Your task to perform on an android device: change text size in settings app Image 0: 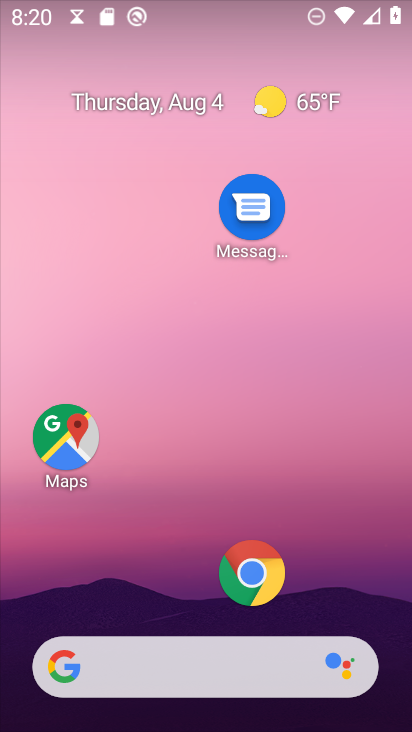
Step 0: press home button
Your task to perform on an android device: change text size in settings app Image 1: 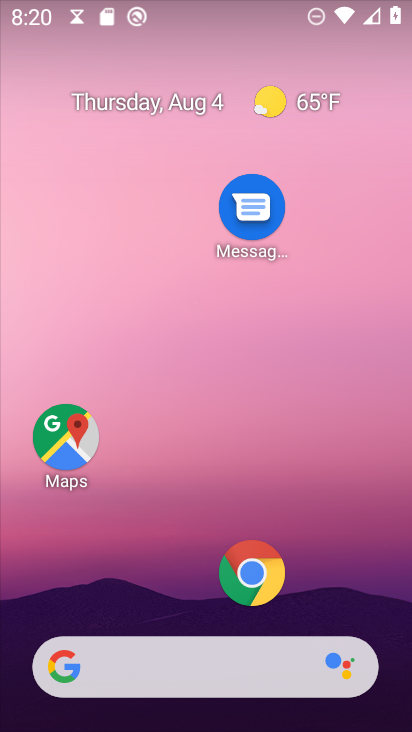
Step 1: drag from (172, 616) to (209, 162)
Your task to perform on an android device: change text size in settings app Image 2: 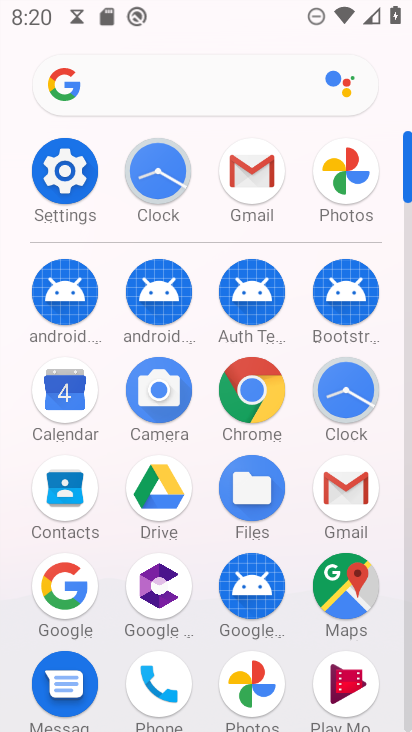
Step 2: click (37, 139)
Your task to perform on an android device: change text size in settings app Image 3: 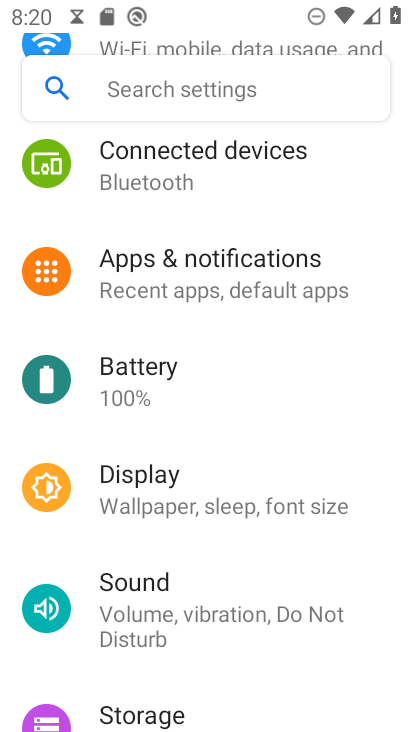
Step 3: click (150, 492)
Your task to perform on an android device: change text size in settings app Image 4: 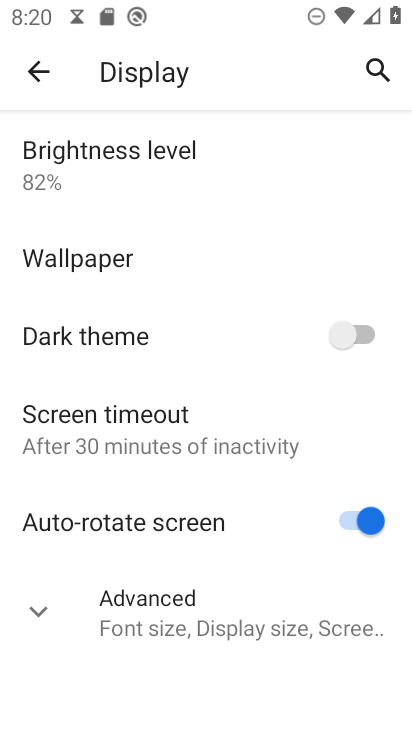
Step 4: drag from (280, 569) to (253, 234)
Your task to perform on an android device: change text size in settings app Image 5: 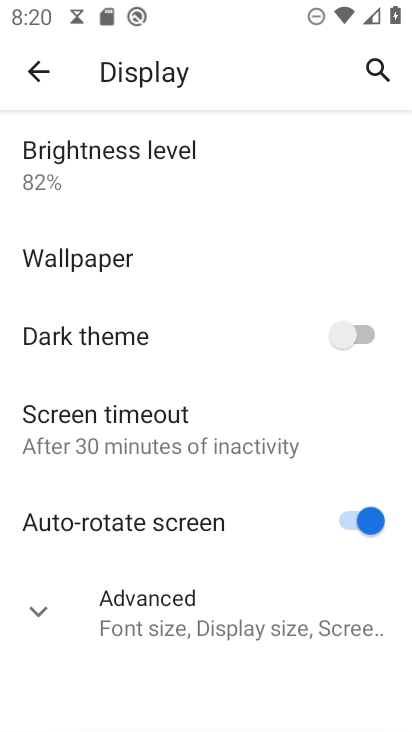
Step 5: click (157, 630)
Your task to perform on an android device: change text size in settings app Image 6: 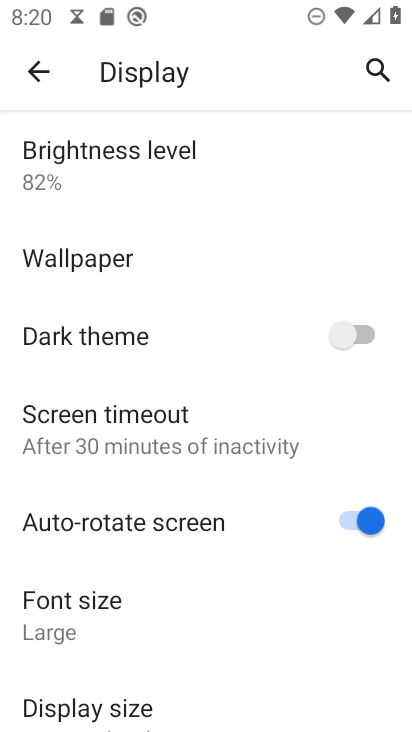
Step 6: drag from (286, 654) to (276, 314)
Your task to perform on an android device: change text size in settings app Image 7: 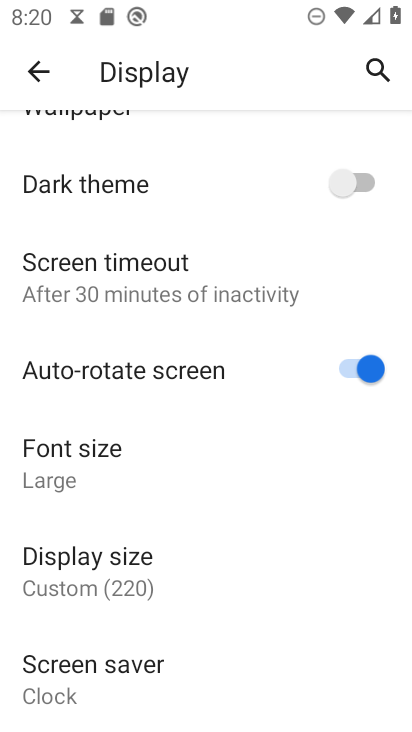
Step 7: click (57, 460)
Your task to perform on an android device: change text size in settings app Image 8: 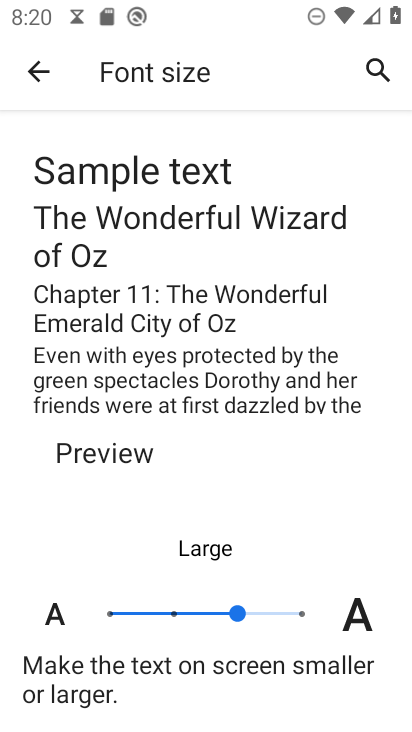
Step 8: click (302, 617)
Your task to perform on an android device: change text size in settings app Image 9: 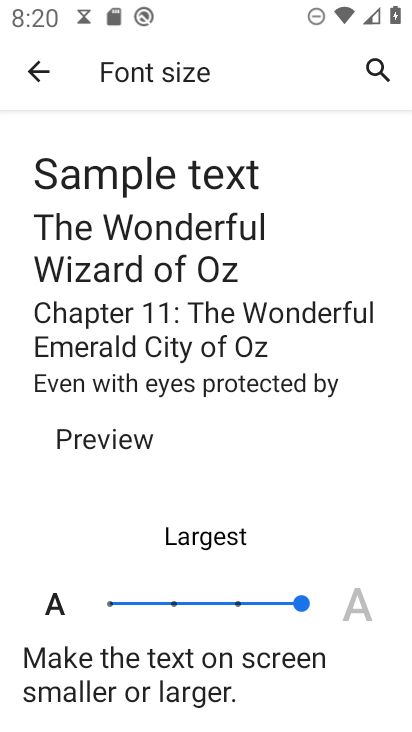
Step 9: task complete